Your task to perform on an android device: Open battery settings Image 0: 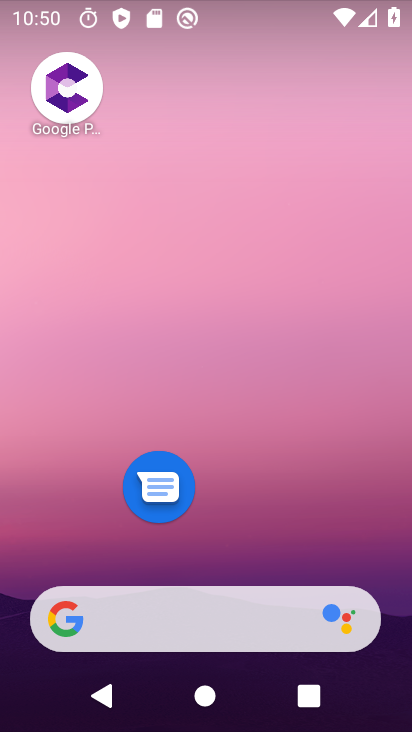
Step 0: drag from (232, 395) to (290, 74)
Your task to perform on an android device: Open battery settings Image 1: 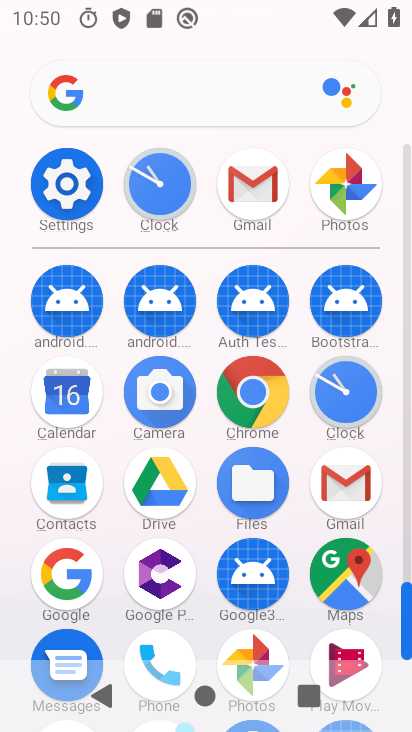
Step 1: click (62, 185)
Your task to perform on an android device: Open battery settings Image 2: 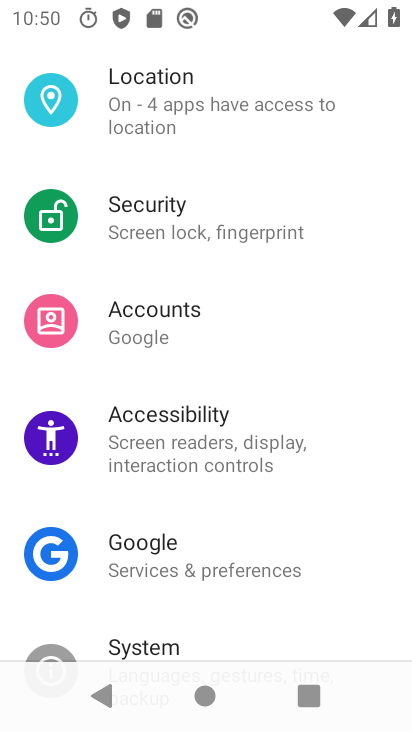
Step 2: drag from (162, 492) to (177, 699)
Your task to perform on an android device: Open battery settings Image 3: 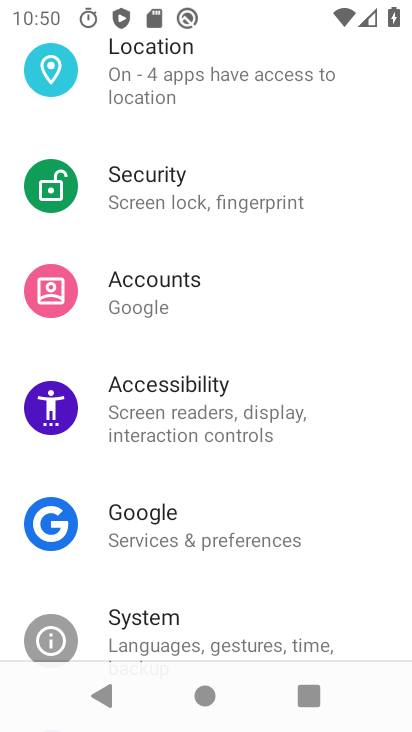
Step 3: drag from (213, 285) to (123, 722)
Your task to perform on an android device: Open battery settings Image 4: 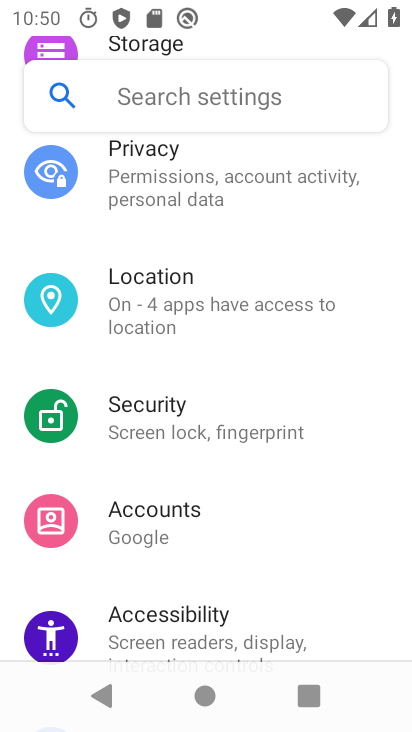
Step 4: drag from (273, 437) to (181, 712)
Your task to perform on an android device: Open battery settings Image 5: 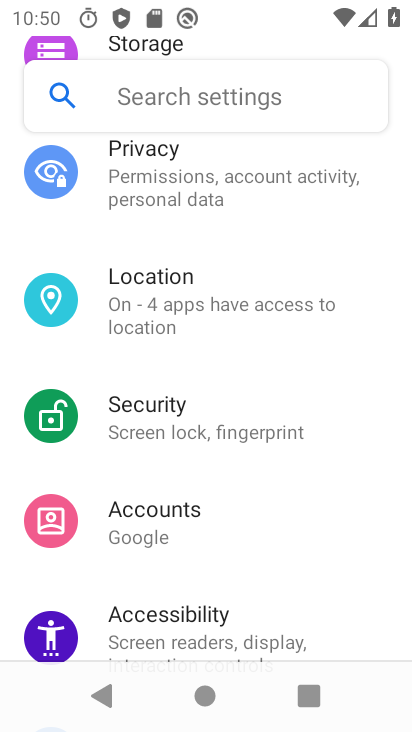
Step 5: drag from (215, 264) to (217, 549)
Your task to perform on an android device: Open battery settings Image 6: 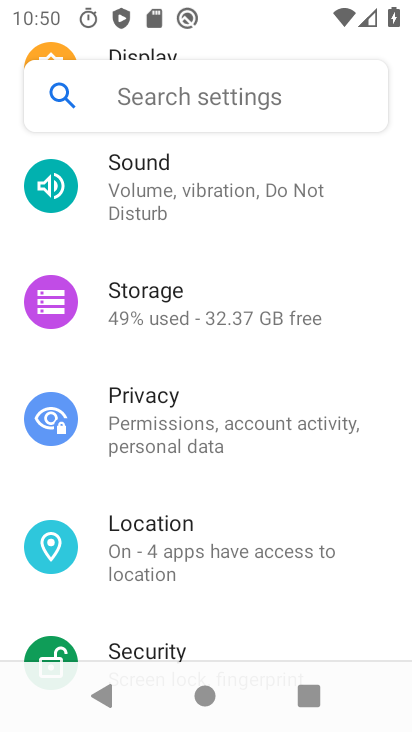
Step 6: drag from (220, 293) to (220, 471)
Your task to perform on an android device: Open battery settings Image 7: 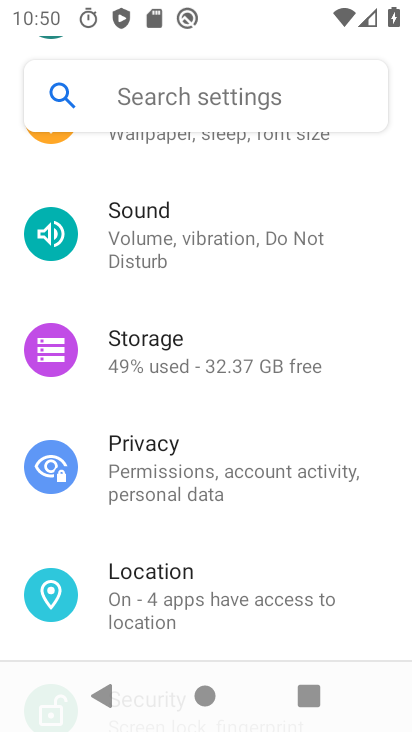
Step 7: drag from (180, 365) to (212, 535)
Your task to perform on an android device: Open battery settings Image 8: 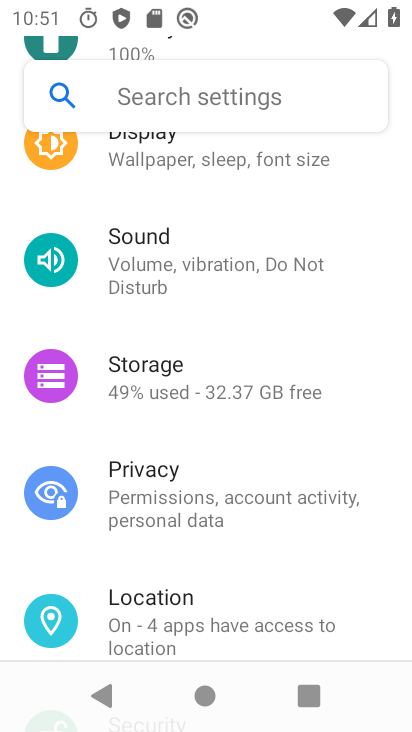
Step 8: drag from (223, 227) to (256, 492)
Your task to perform on an android device: Open battery settings Image 9: 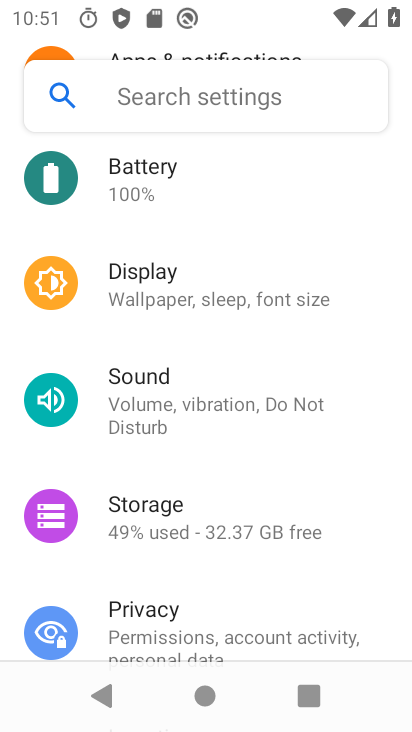
Step 9: click (129, 176)
Your task to perform on an android device: Open battery settings Image 10: 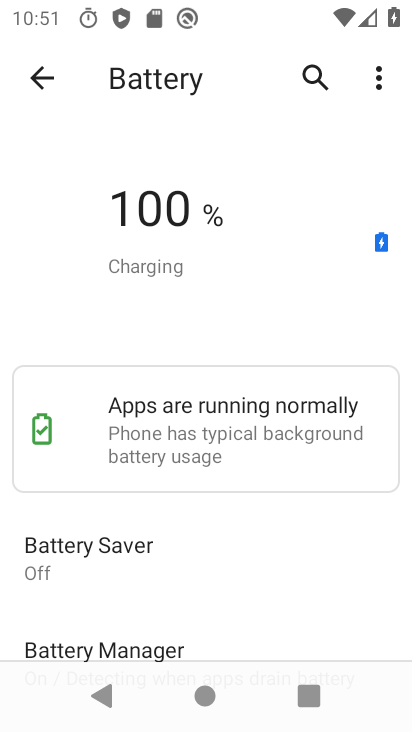
Step 10: task complete